Your task to perform on an android device: Open Google Chrome Image 0: 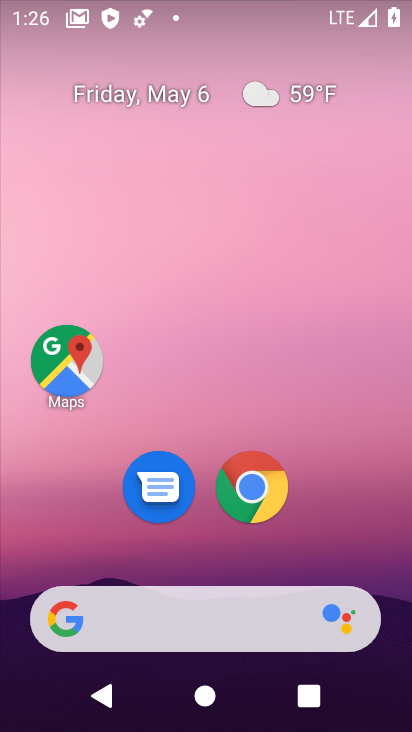
Step 0: drag from (240, 560) to (265, 41)
Your task to perform on an android device: Open Google Chrome Image 1: 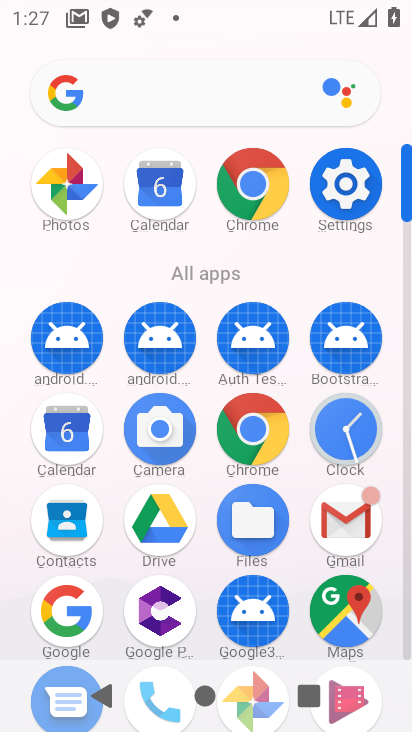
Step 1: click (247, 212)
Your task to perform on an android device: Open Google Chrome Image 2: 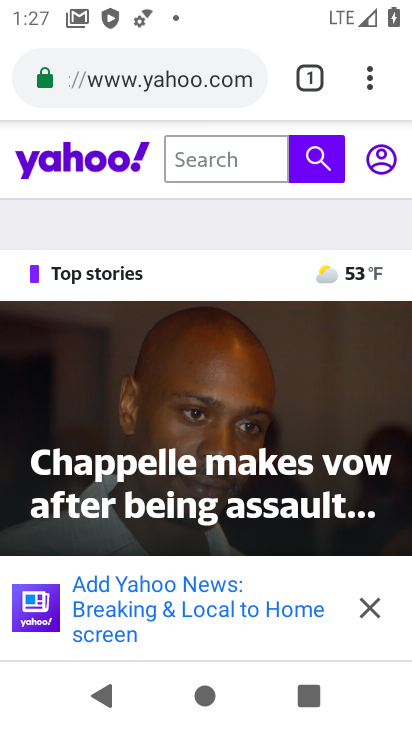
Step 2: task complete